Your task to perform on an android device: Open Chrome and go to the settings page Image 0: 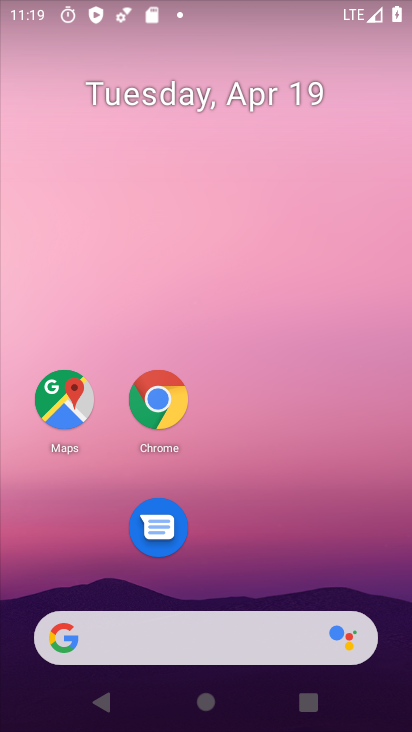
Step 0: click (241, 680)
Your task to perform on an android device: Open Chrome and go to the settings page Image 1: 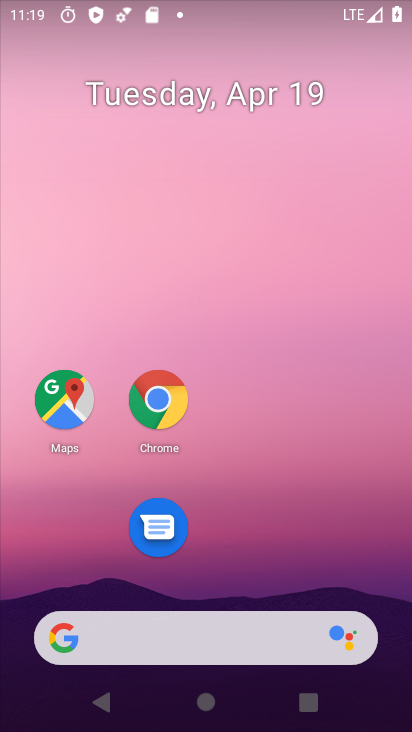
Step 1: drag from (280, 671) to (269, 135)
Your task to perform on an android device: Open Chrome and go to the settings page Image 2: 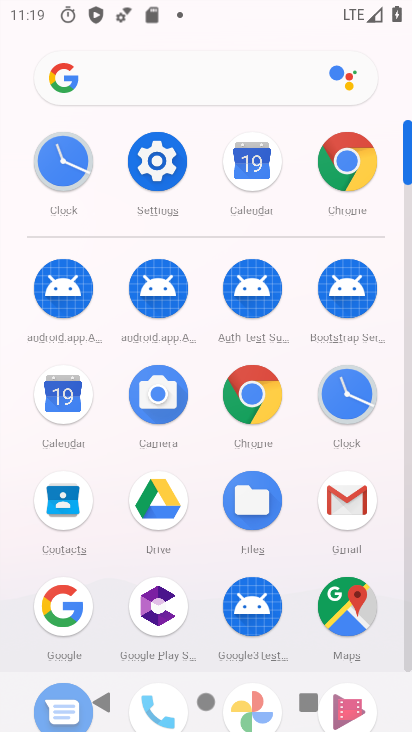
Step 2: click (354, 145)
Your task to perform on an android device: Open Chrome and go to the settings page Image 3: 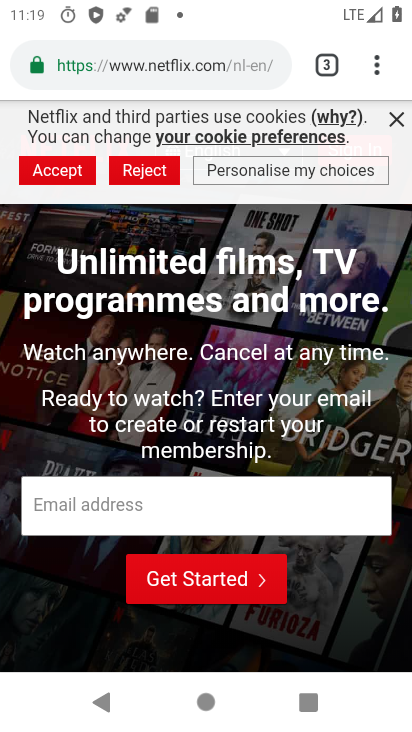
Step 3: click (371, 66)
Your task to perform on an android device: Open Chrome and go to the settings page Image 4: 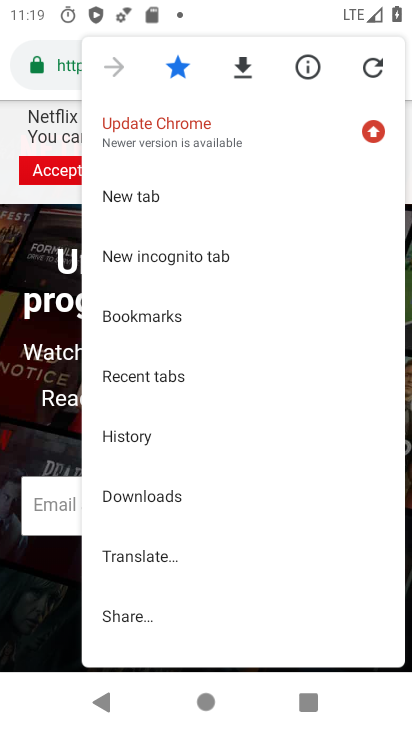
Step 4: drag from (175, 562) to (169, 425)
Your task to perform on an android device: Open Chrome and go to the settings page Image 5: 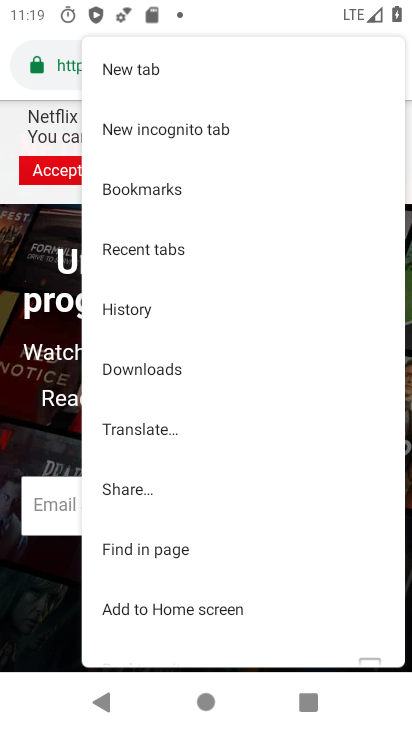
Step 5: drag from (169, 533) to (175, 439)
Your task to perform on an android device: Open Chrome and go to the settings page Image 6: 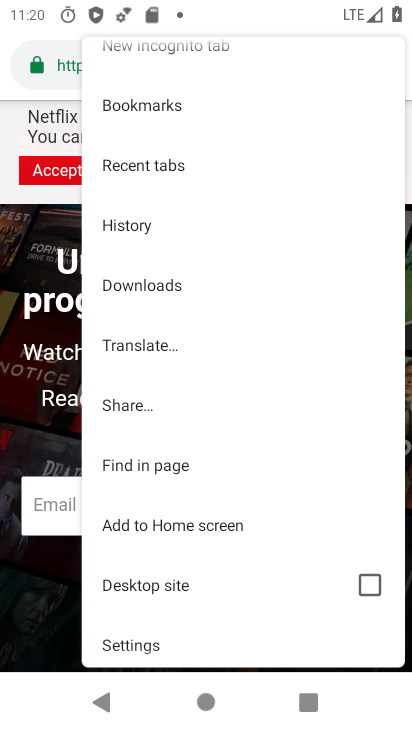
Step 6: click (143, 651)
Your task to perform on an android device: Open Chrome and go to the settings page Image 7: 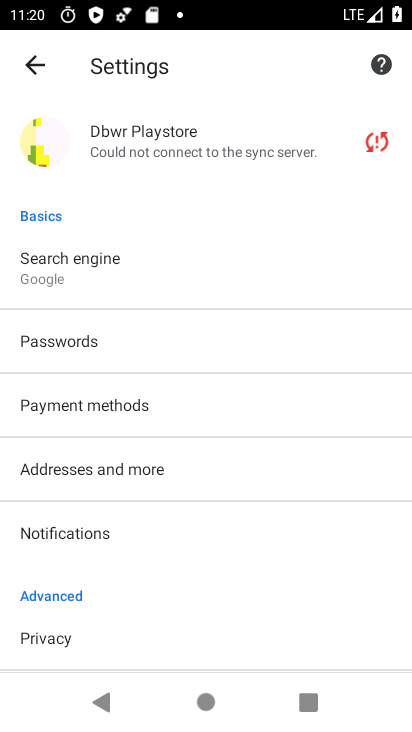
Step 7: click (173, 567)
Your task to perform on an android device: Open Chrome and go to the settings page Image 8: 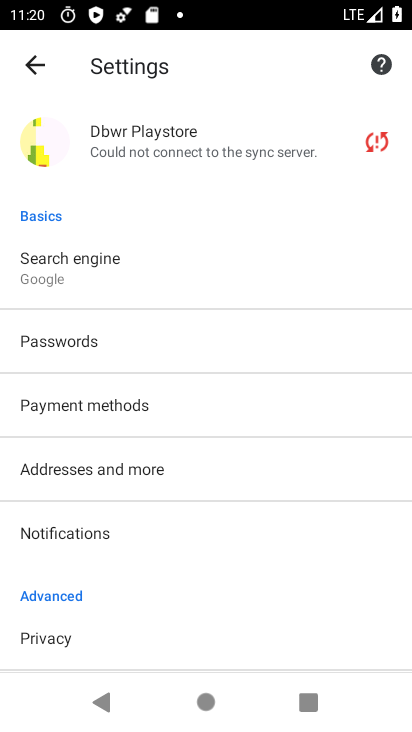
Step 8: task complete